Your task to perform on an android device: toggle sleep mode Image 0: 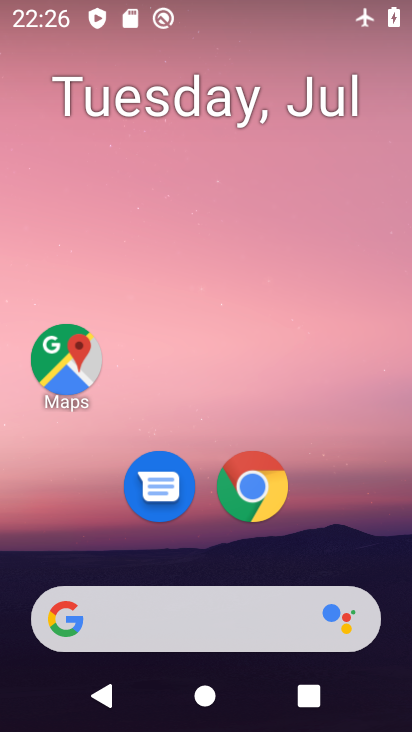
Step 0: press home button
Your task to perform on an android device: toggle sleep mode Image 1: 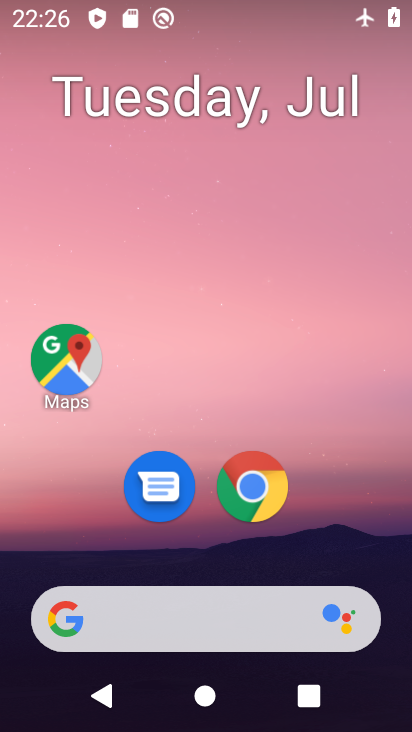
Step 1: drag from (375, 540) to (355, 200)
Your task to perform on an android device: toggle sleep mode Image 2: 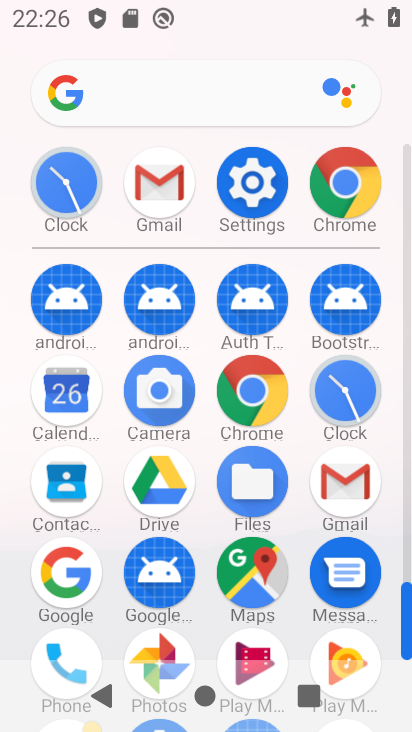
Step 2: click (254, 185)
Your task to perform on an android device: toggle sleep mode Image 3: 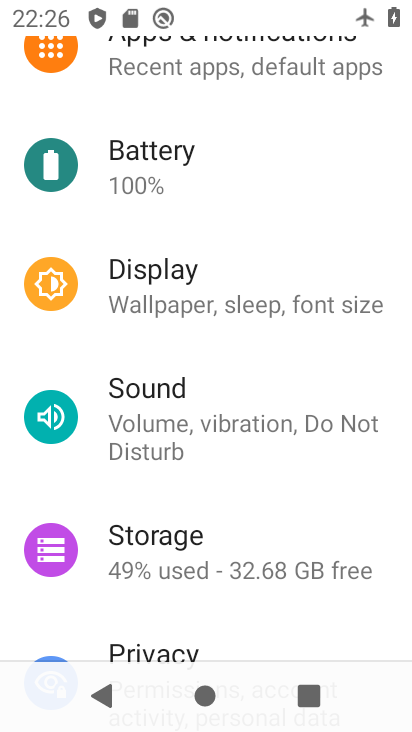
Step 3: drag from (278, 188) to (287, 251)
Your task to perform on an android device: toggle sleep mode Image 4: 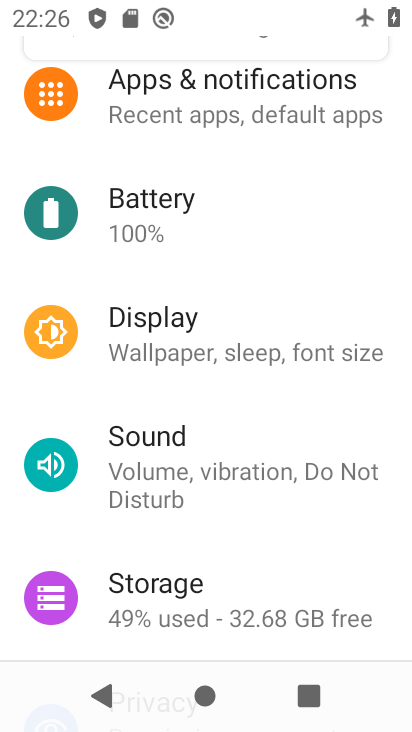
Step 4: drag from (315, 180) to (315, 280)
Your task to perform on an android device: toggle sleep mode Image 5: 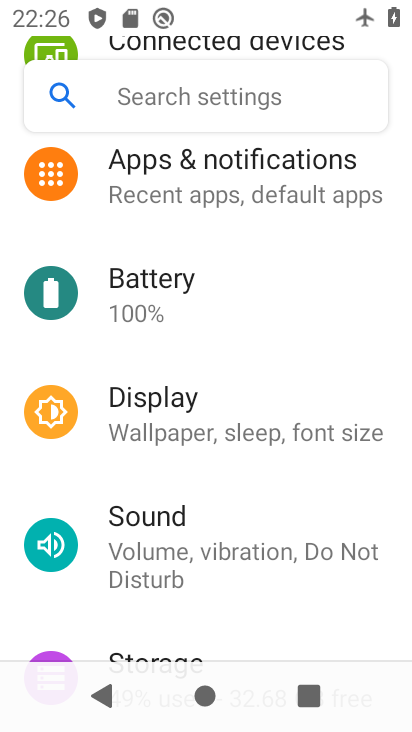
Step 5: drag from (321, 223) to (320, 345)
Your task to perform on an android device: toggle sleep mode Image 6: 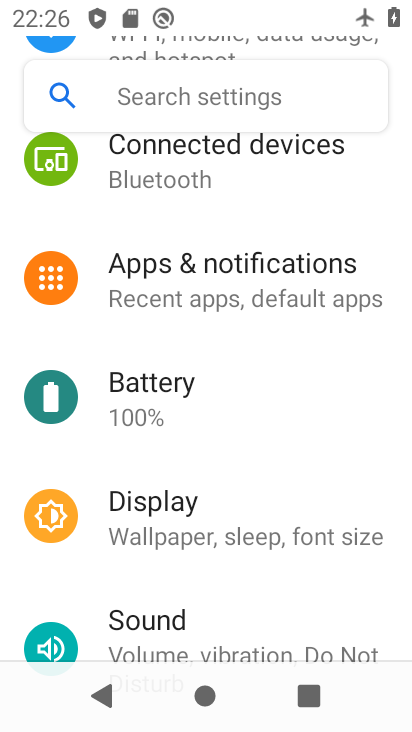
Step 6: drag from (344, 195) to (368, 457)
Your task to perform on an android device: toggle sleep mode Image 7: 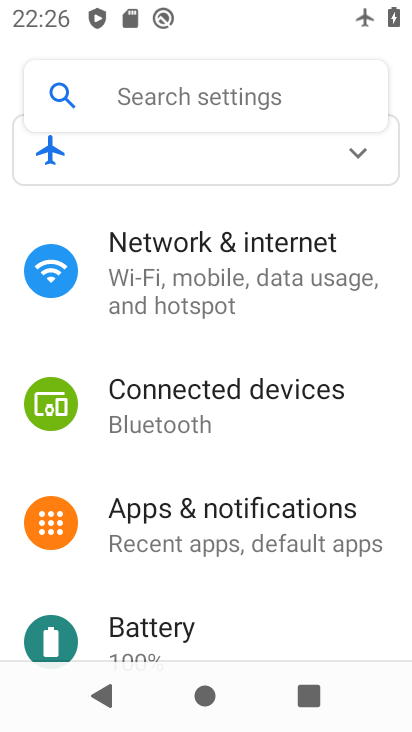
Step 7: drag from (365, 234) to (370, 411)
Your task to perform on an android device: toggle sleep mode Image 8: 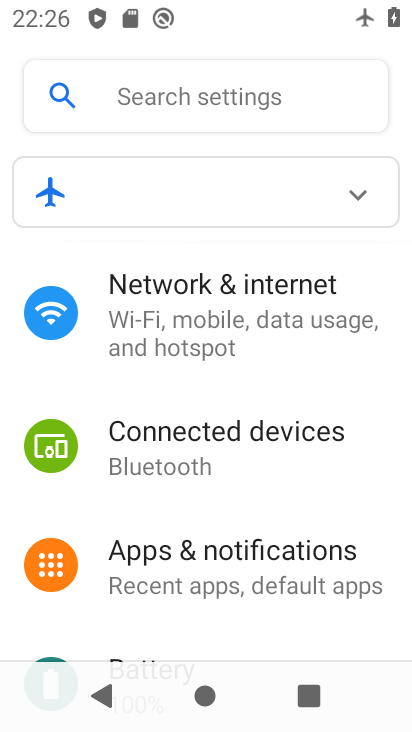
Step 8: drag from (356, 497) to (358, 389)
Your task to perform on an android device: toggle sleep mode Image 9: 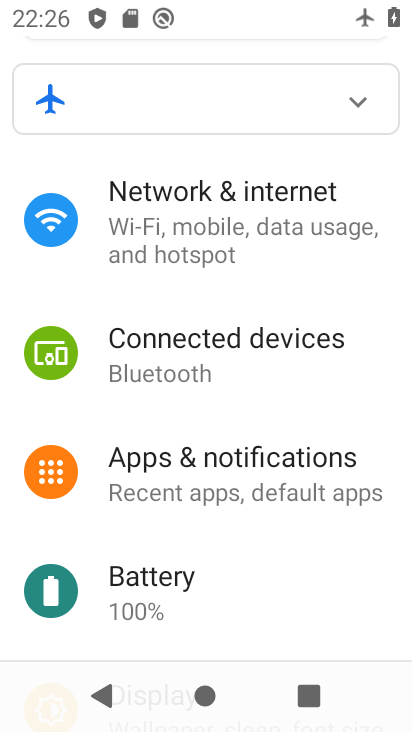
Step 9: drag from (340, 533) to (340, 425)
Your task to perform on an android device: toggle sleep mode Image 10: 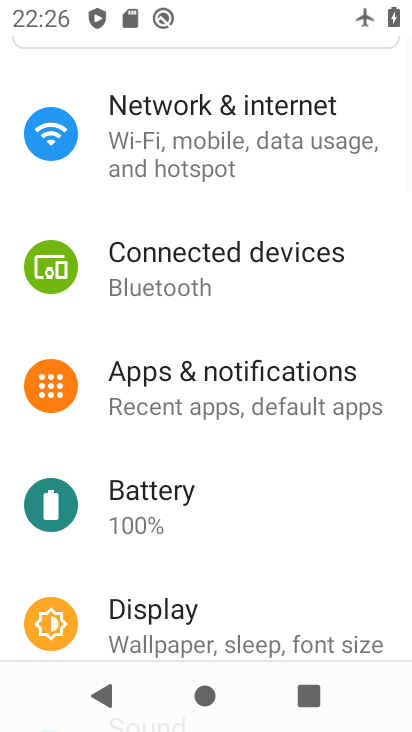
Step 10: drag from (321, 519) to (326, 421)
Your task to perform on an android device: toggle sleep mode Image 11: 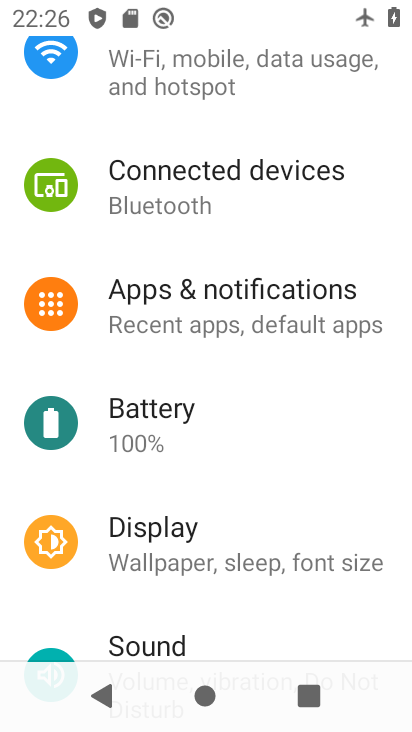
Step 11: drag from (306, 542) to (313, 395)
Your task to perform on an android device: toggle sleep mode Image 12: 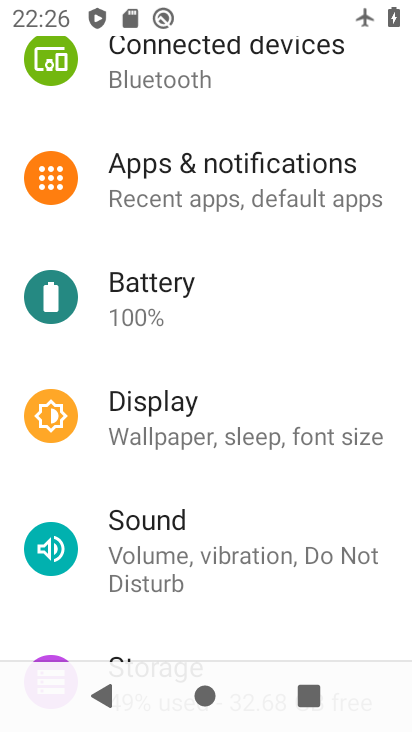
Step 12: drag from (266, 540) to (281, 416)
Your task to perform on an android device: toggle sleep mode Image 13: 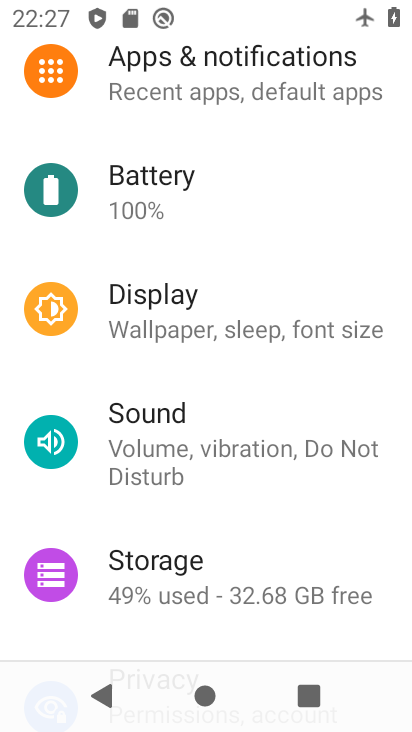
Step 13: click (248, 327)
Your task to perform on an android device: toggle sleep mode Image 14: 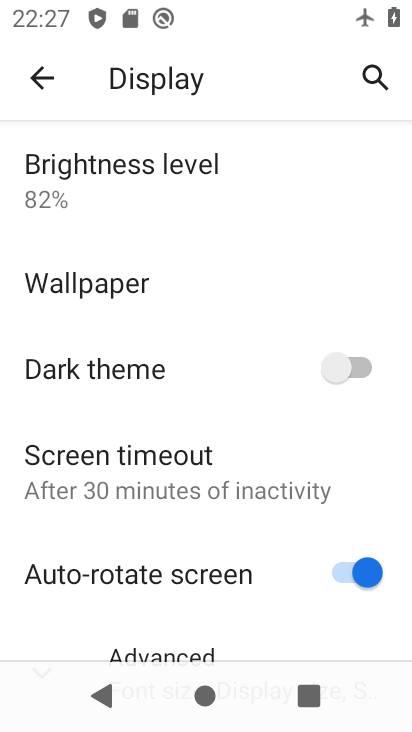
Step 14: drag from (237, 484) to (254, 370)
Your task to perform on an android device: toggle sleep mode Image 15: 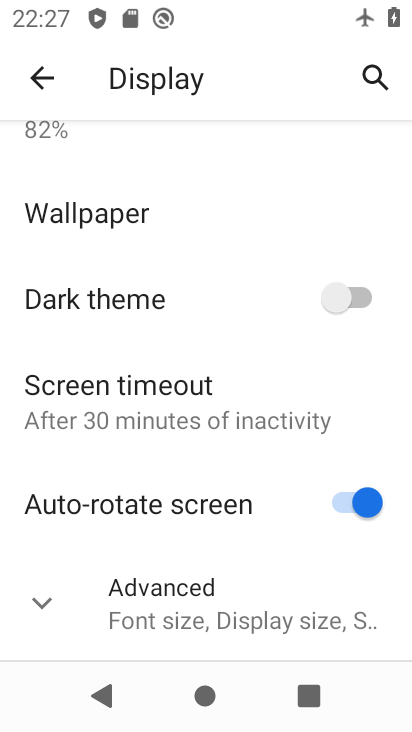
Step 15: click (237, 618)
Your task to perform on an android device: toggle sleep mode Image 16: 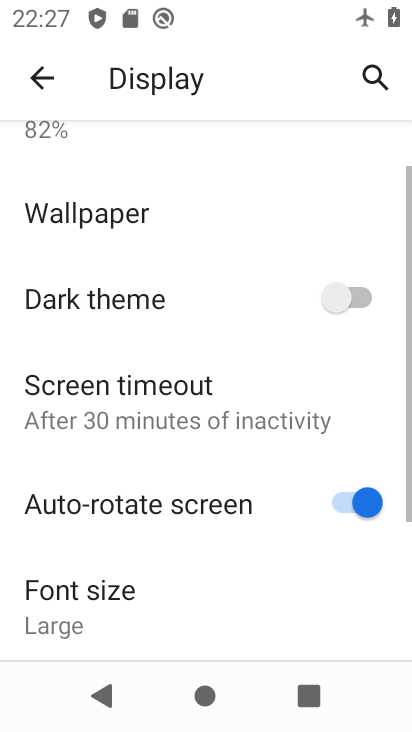
Step 16: task complete